Your task to perform on an android device: Search for "razer blackwidow" on bestbuy, select the first entry, and add it to the cart. Image 0: 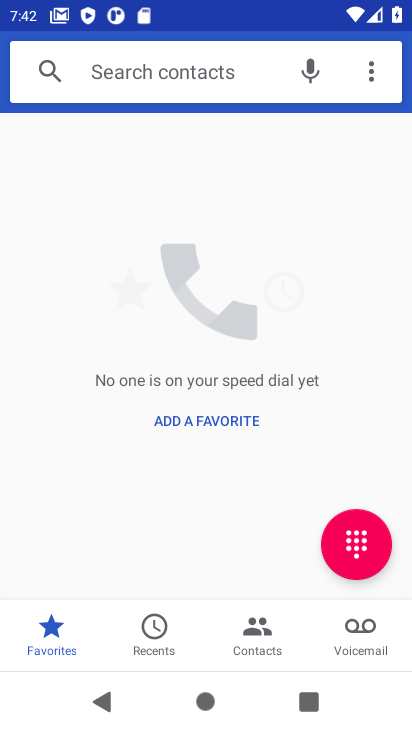
Step 0: press home button
Your task to perform on an android device: Search for "razer blackwidow" on bestbuy, select the first entry, and add it to the cart. Image 1: 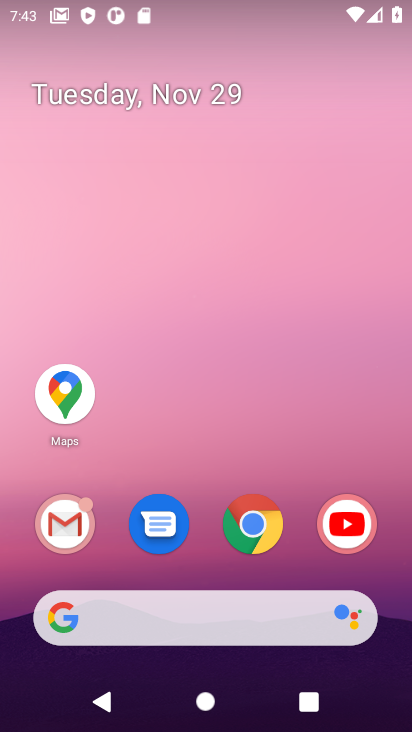
Step 1: click (255, 528)
Your task to perform on an android device: Search for "razer blackwidow" on bestbuy, select the first entry, and add it to the cart. Image 2: 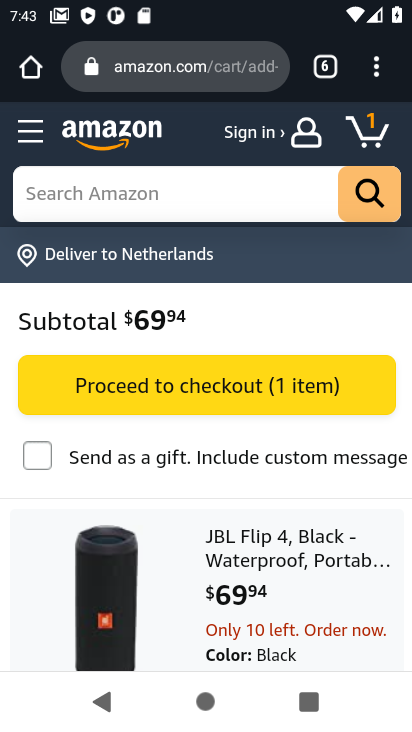
Step 2: click (177, 76)
Your task to perform on an android device: Search for "razer blackwidow" on bestbuy, select the first entry, and add it to the cart. Image 3: 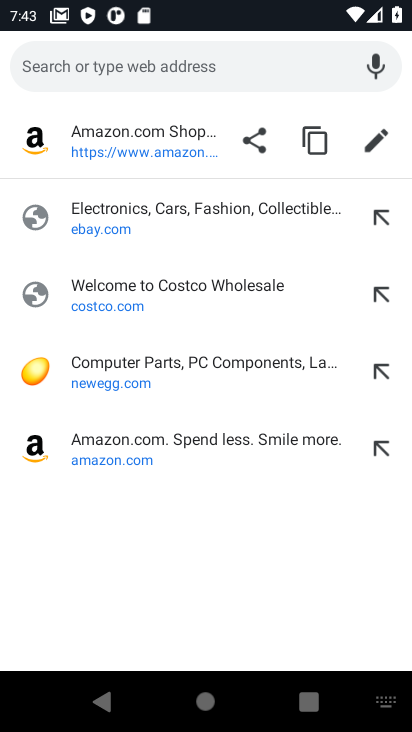
Step 3: type "bestbuy.com"
Your task to perform on an android device: Search for "razer blackwidow" on bestbuy, select the first entry, and add it to the cart. Image 4: 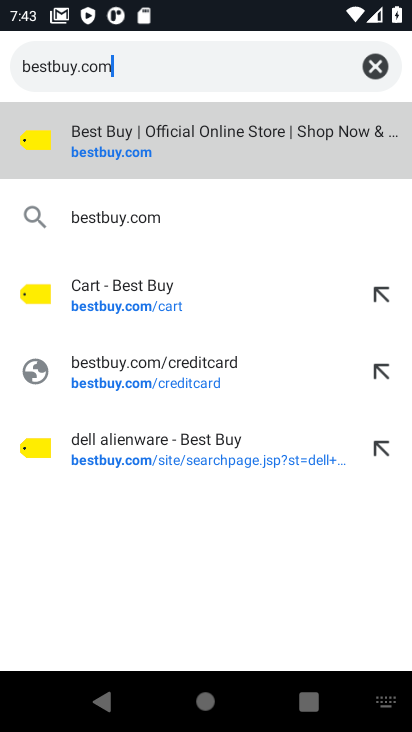
Step 4: click (118, 143)
Your task to perform on an android device: Search for "razer blackwidow" on bestbuy, select the first entry, and add it to the cart. Image 5: 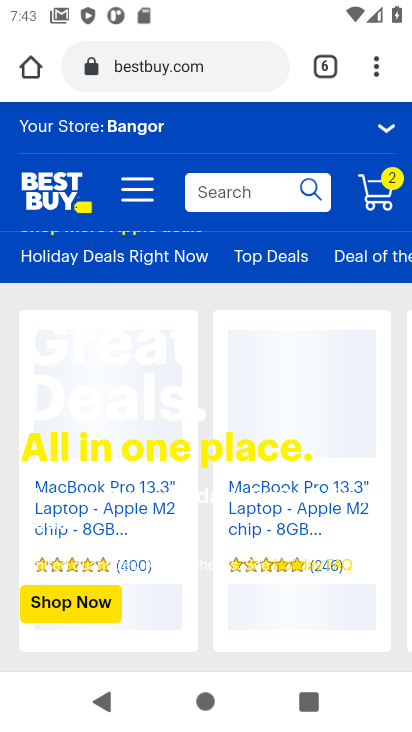
Step 5: click (212, 202)
Your task to perform on an android device: Search for "razer blackwidow" on bestbuy, select the first entry, and add it to the cart. Image 6: 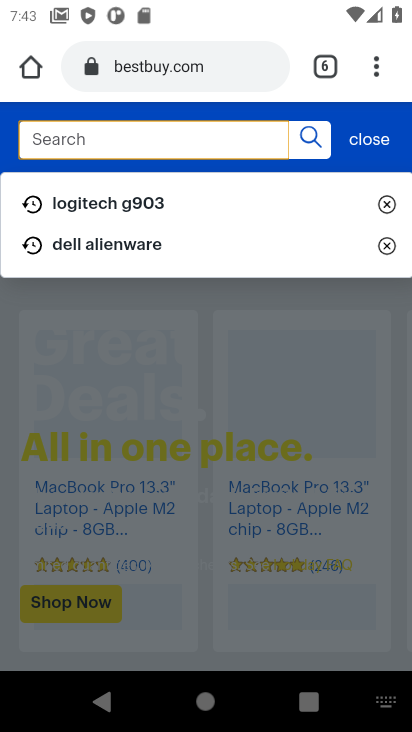
Step 6: type "razer blackwidow"
Your task to perform on an android device: Search for "razer blackwidow" on bestbuy, select the first entry, and add it to the cart. Image 7: 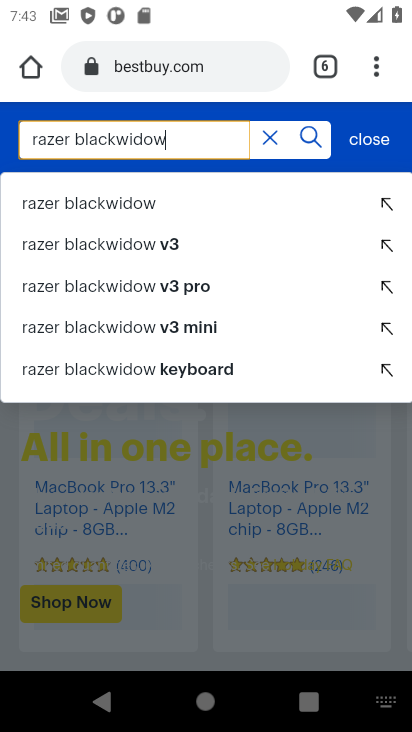
Step 7: click (100, 206)
Your task to perform on an android device: Search for "razer blackwidow" on bestbuy, select the first entry, and add it to the cart. Image 8: 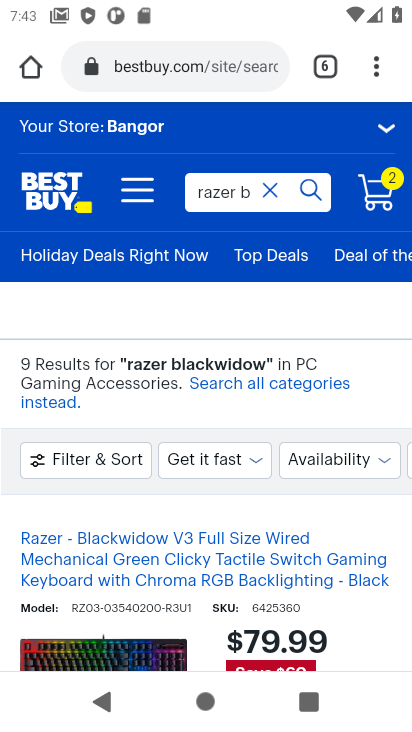
Step 8: drag from (138, 556) to (146, 345)
Your task to perform on an android device: Search for "razer blackwidow" on bestbuy, select the first entry, and add it to the cart. Image 9: 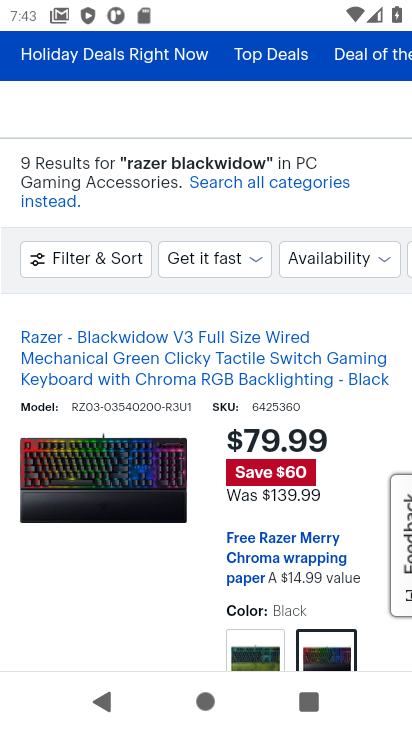
Step 9: drag from (140, 538) to (132, 352)
Your task to perform on an android device: Search for "razer blackwidow" on bestbuy, select the first entry, and add it to the cart. Image 10: 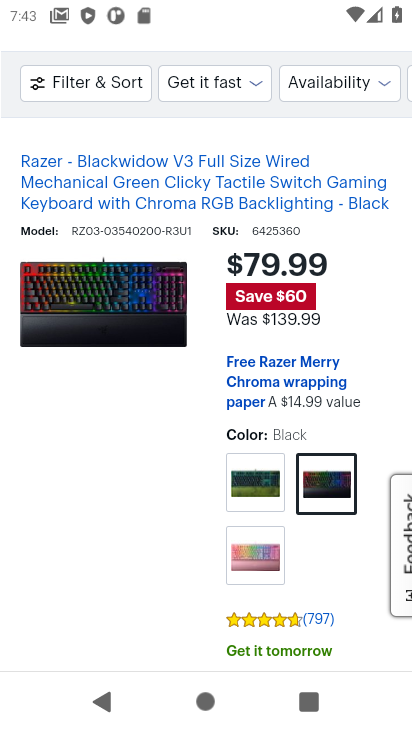
Step 10: drag from (133, 433) to (123, 270)
Your task to perform on an android device: Search for "razer blackwidow" on bestbuy, select the first entry, and add it to the cart. Image 11: 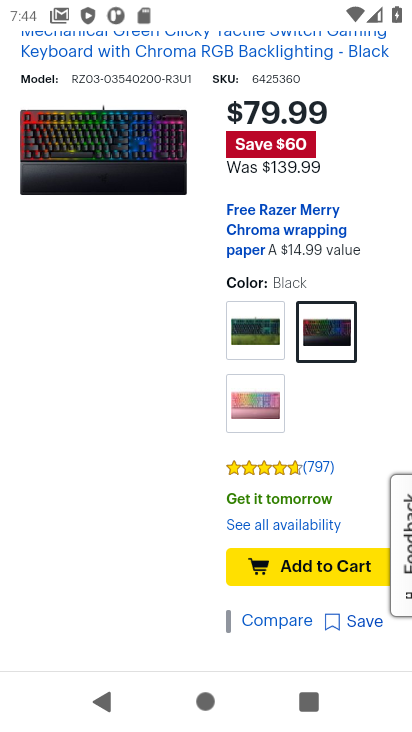
Step 11: click (278, 551)
Your task to perform on an android device: Search for "razer blackwidow" on bestbuy, select the first entry, and add it to the cart. Image 12: 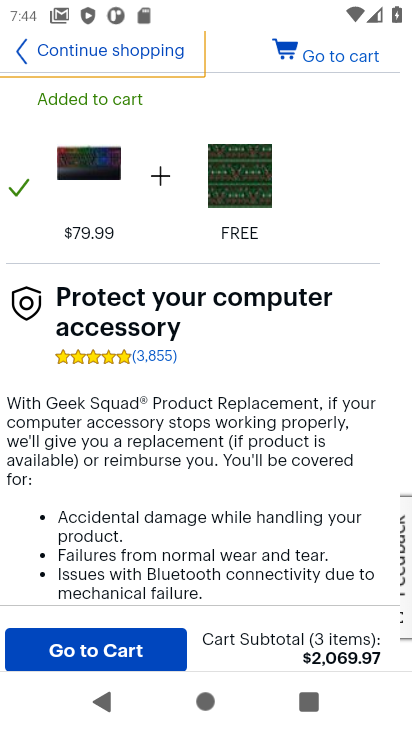
Step 12: task complete